Your task to perform on an android device: Go to accessibility settings Image 0: 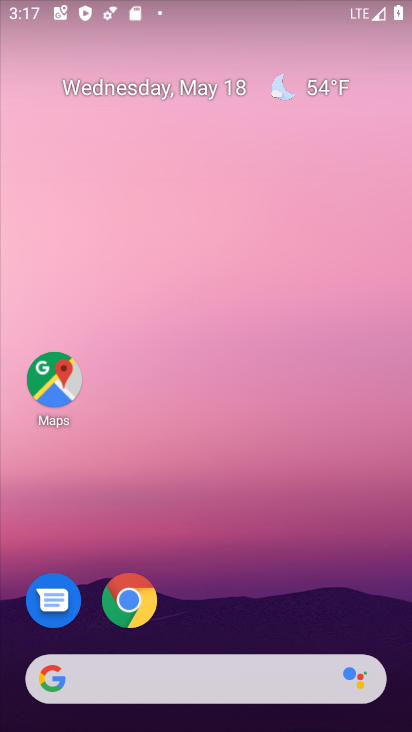
Step 0: press home button
Your task to perform on an android device: Go to accessibility settings Image 1: 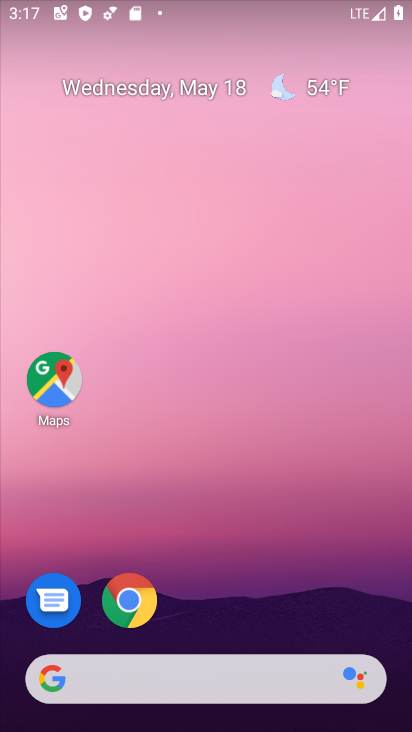
Step 1: drag from (108, 684) to (273, 141)
Your task to perform on an android device: Go to accessibility settings Image 2: 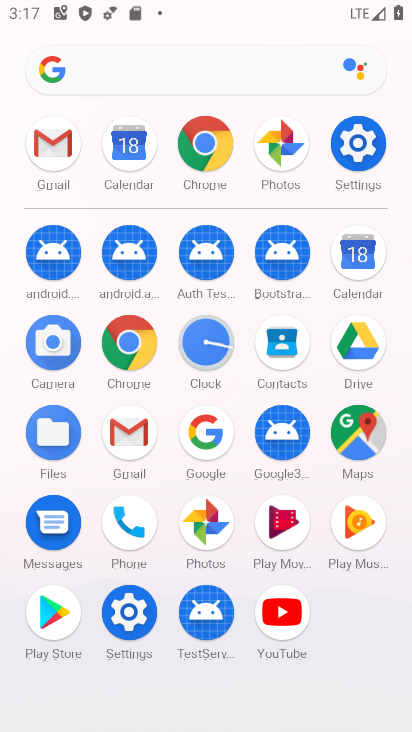
Step 2: click (360, 139)
Your task to perform on an android device: Go to accessibility settings Image 3: 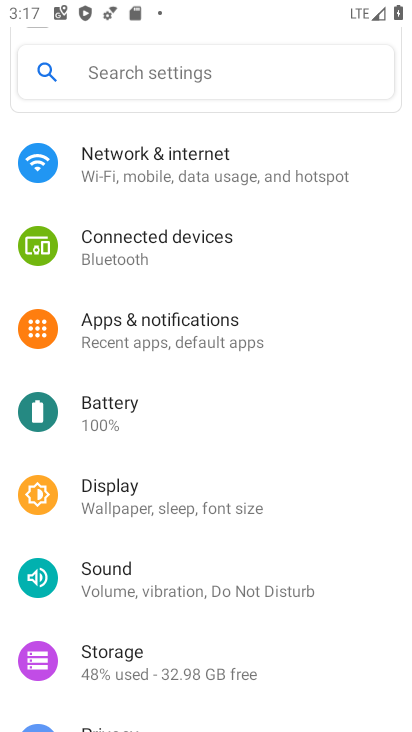
Step 3: drag from (246, 650) to (359, 110)
Your task to perform on an android device: Go to accessibility settings Image 4: 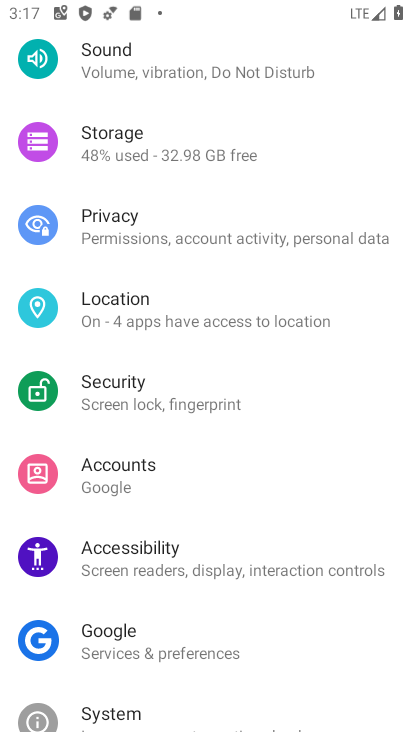
Step 4: click (176, 553)
Your task to perform on an android device: Go to accessibility settings Image 5: 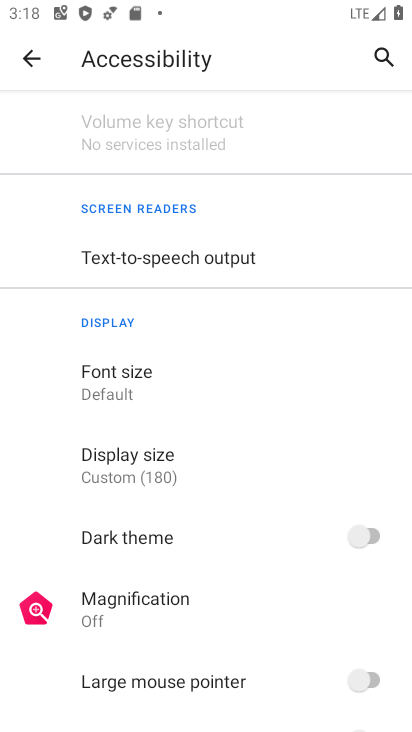
Step 5: task complete